Your task to perform on an android device: What is the news today? Image 0: 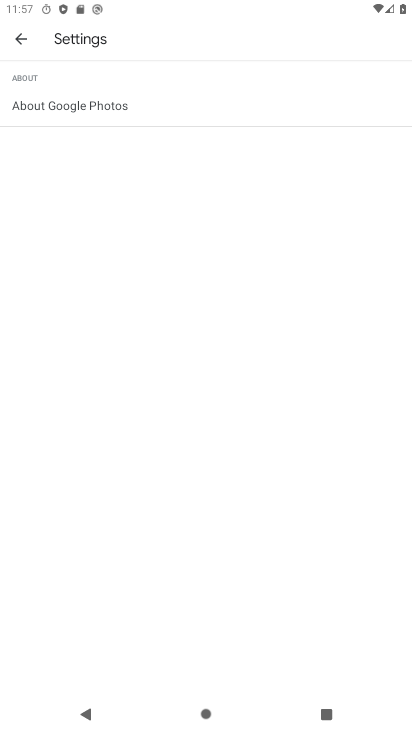
Step 0: press home button
Your task to perform on an android device: What is the news today? Image 1: 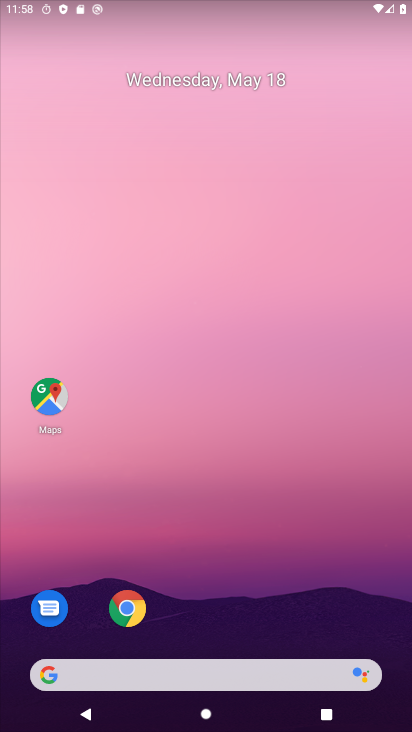
Step 1: click (132, 607)
Your task to perform on an android device: What is the news today? Image 2: 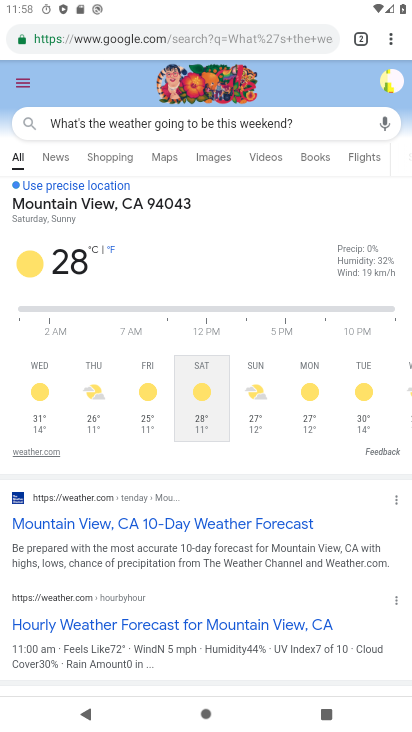
Step 2: click (220, 119)
Your task to perform on an android device: What is the news today? Image 3: 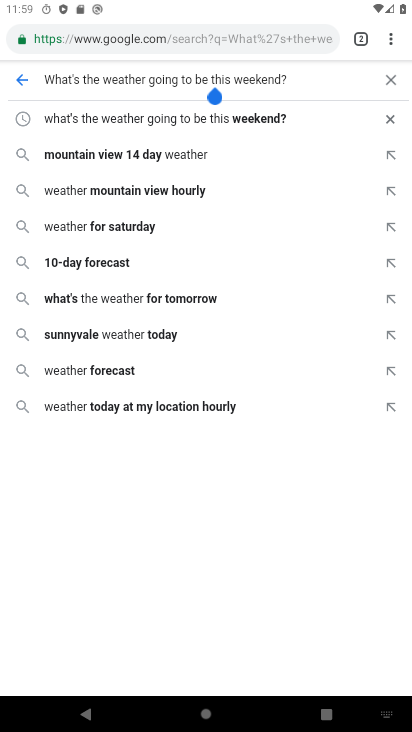
Step 3: click (394, 78)
Your task to perform on an android device: What is the news today? Image 4: 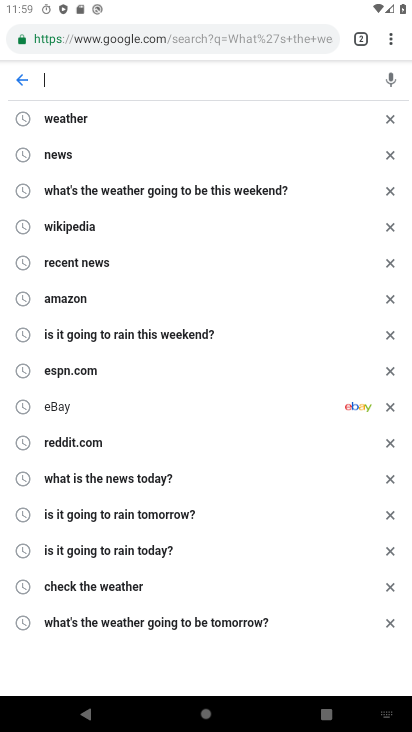
Step 4: type "What is the news today?"
Your task to perform on an android device: What is the news today? Image 5: 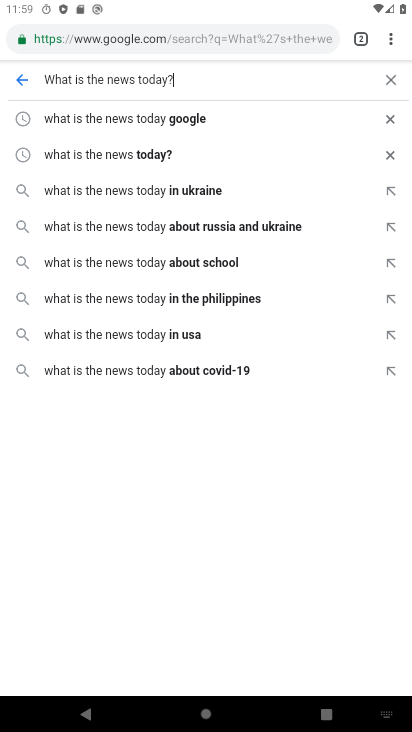
Step 5: click (220, 160)
Your task to perform on an android device: What is the news today? Image 6: 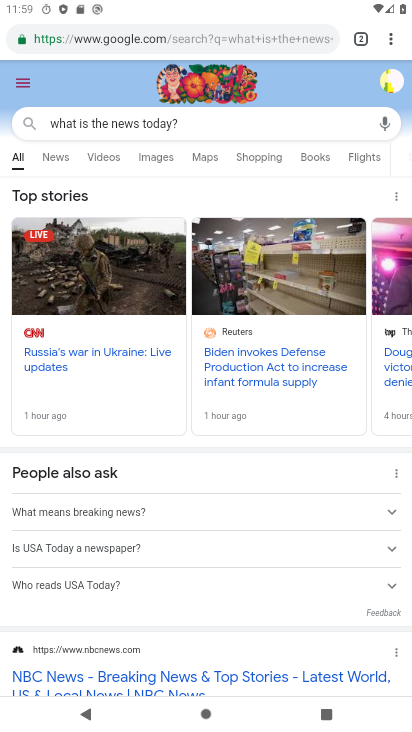
Step 6: task complete